Your task to perform on an android device: change the clock style Image 0: 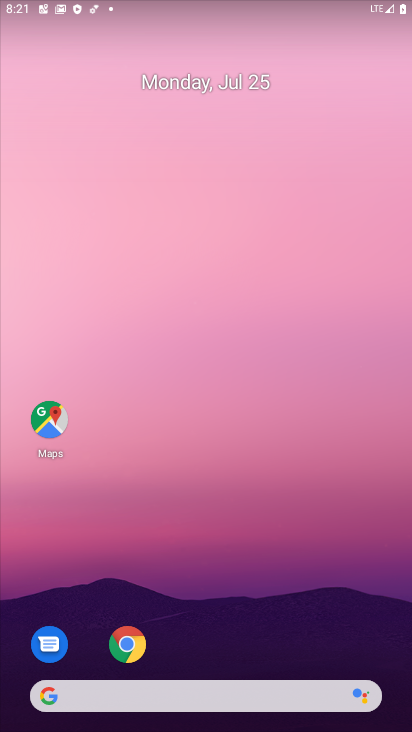
Step 0: drag from (246, 557) to (244, 35)
Your task to perform on an android device: change the clock style Image 1: 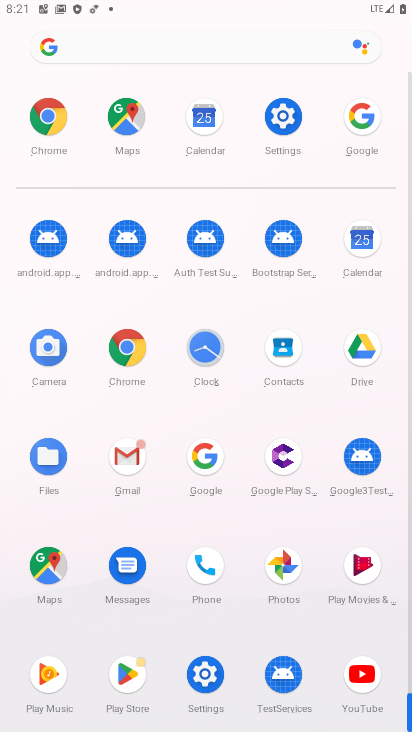
Step 1: click (194, 364)
Your task to perform on an android device: change the clock style Image 2: 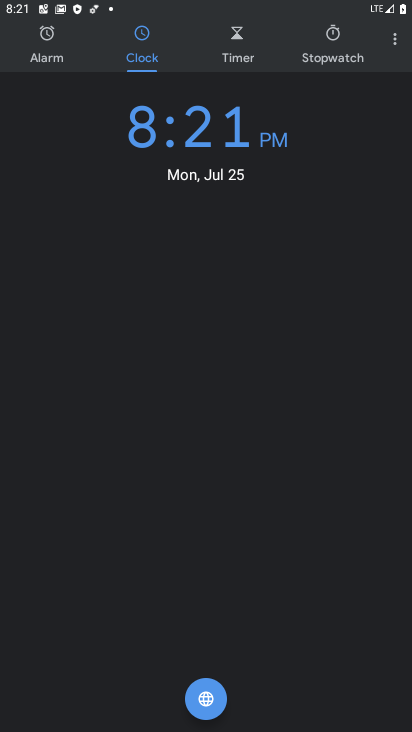
Step 2: click (403, 51)
Your task to perform on an android device: change the clock style Image 3: 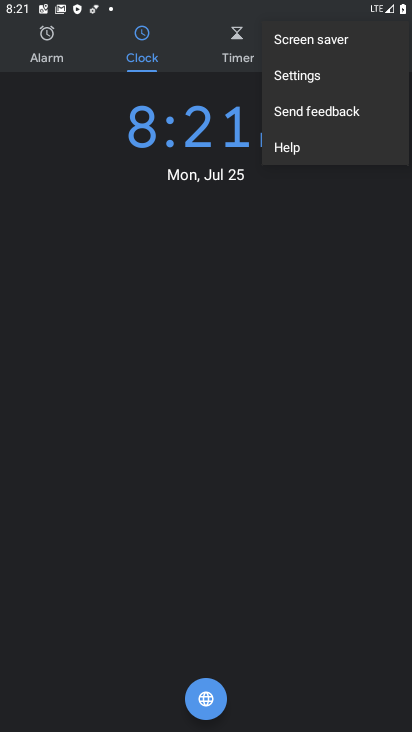
Step 3: click (322, 82)
Your task to perform on an android device: change the clock style Image 4: 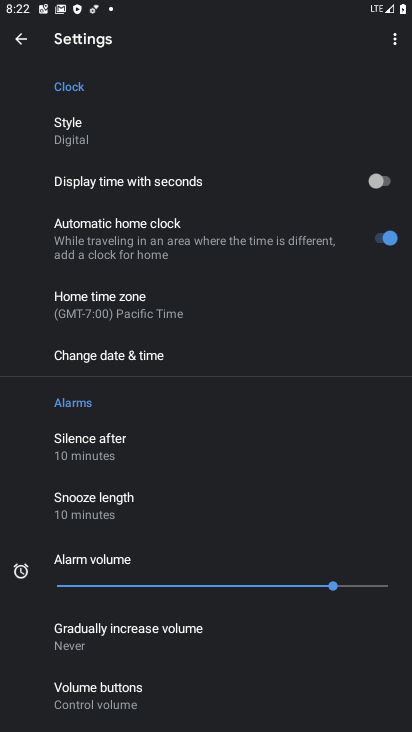
Step 4: click (143, 134)
Your task to perform on an android device: change the clock style Image 5: 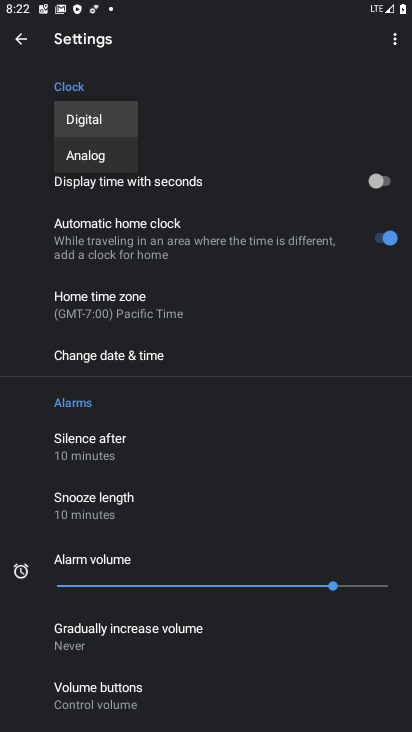
Step 5: click (106, 154)
Your task to perform on an android device: change the clock style Image 6: 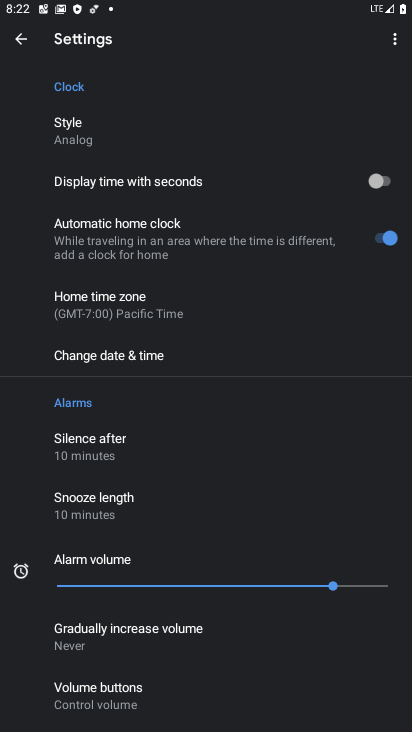
Step 6: task complete